Your task to perform on an android device: change the upload size in google photos Image 0: 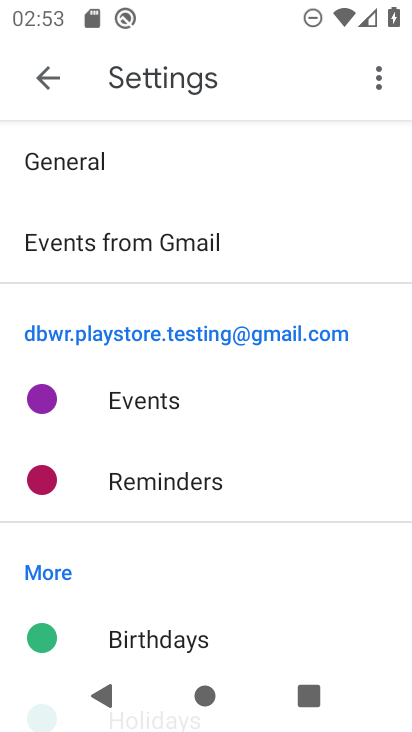
Step 0: press home button
Your task to perform on an android device: change the upload size in google photos Image 1: 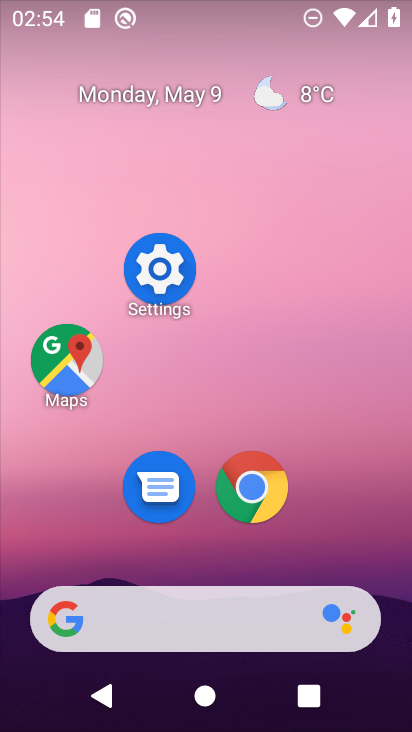
Step 1: drag from (357, 561) to (330, 219)
Your task to perform on an android device: change the upload size in google photos Image 2: 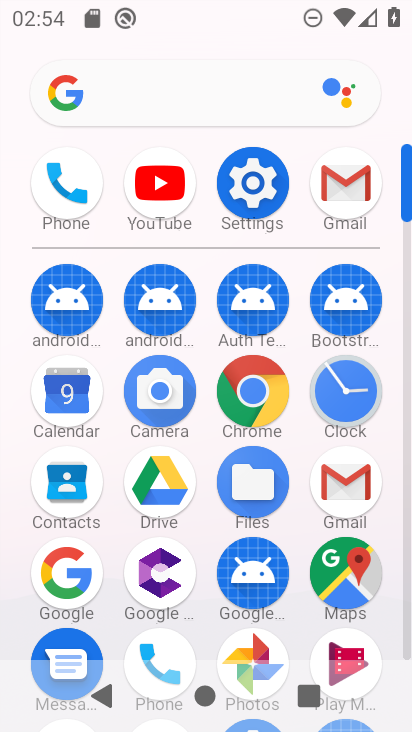
Step 2: drag from (203, 254) to (172, 100)
Your task to perform on an android device: change the upload size in google photos Image 3: 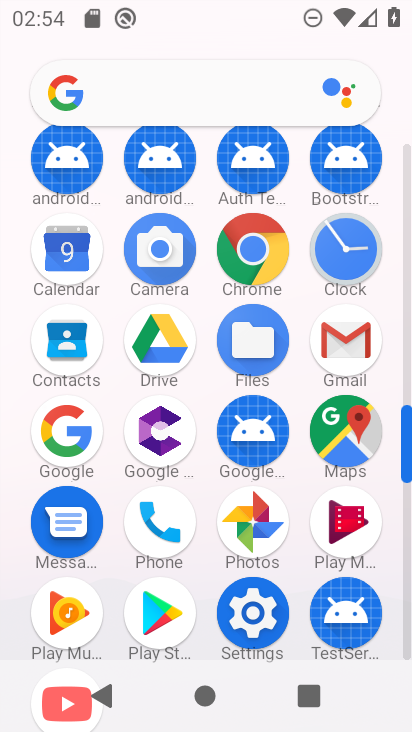
Step 3: click (236, 513)
Your task to perform on an android device: change the upload size in google photos Image 4: 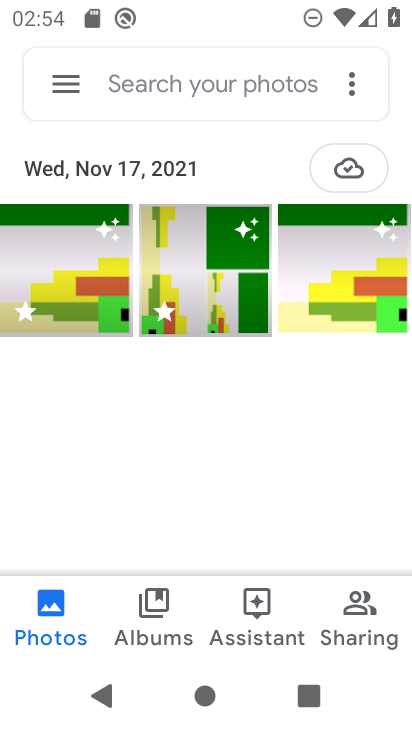
Step 4: click (74, 85)
Your task to perform on an android device: change the upload size in google photos Image 5: 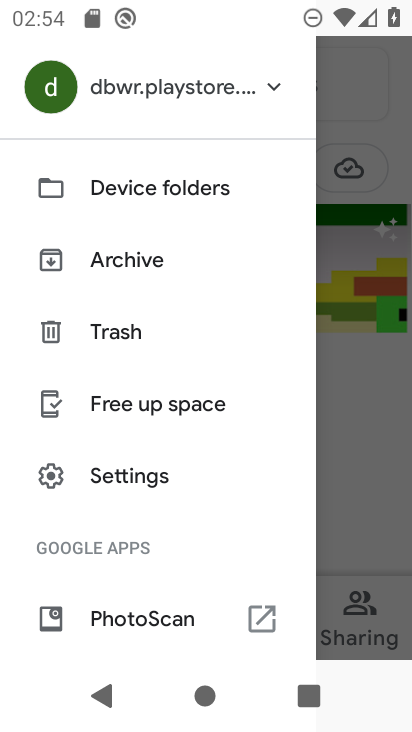
Step 5: drag from (146, 570) to (116, 170)
Your task to perform on an android device: change the upload size in google photos Image 6: 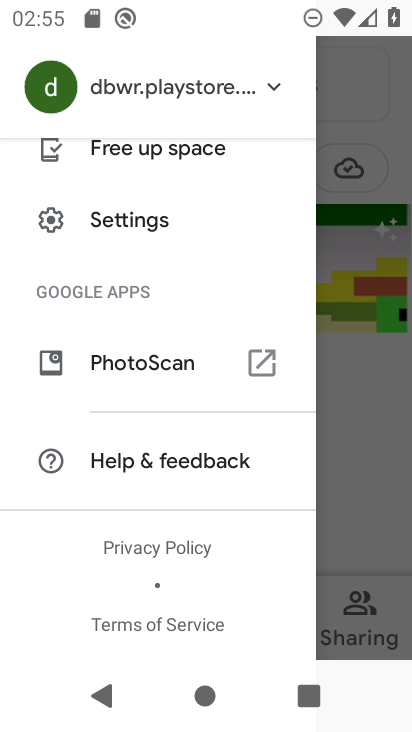
Step 6: click (159, 211)
Your task to perform on an android device: change the upload size in google photos Image 7: 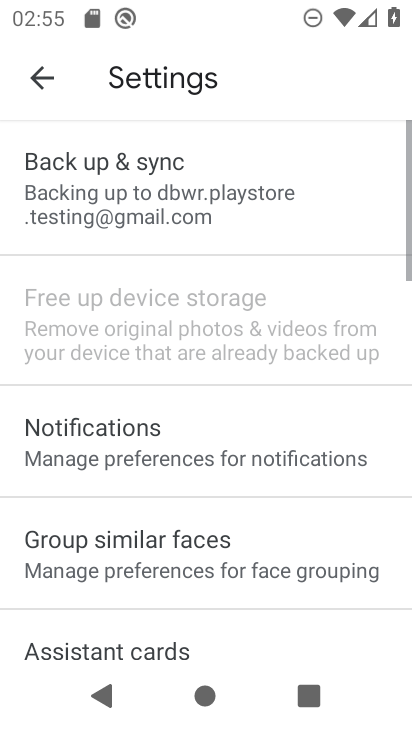
Step 7: click (250, 167)
Your task to perform on an android device: change the upload size in google photos Image 8: 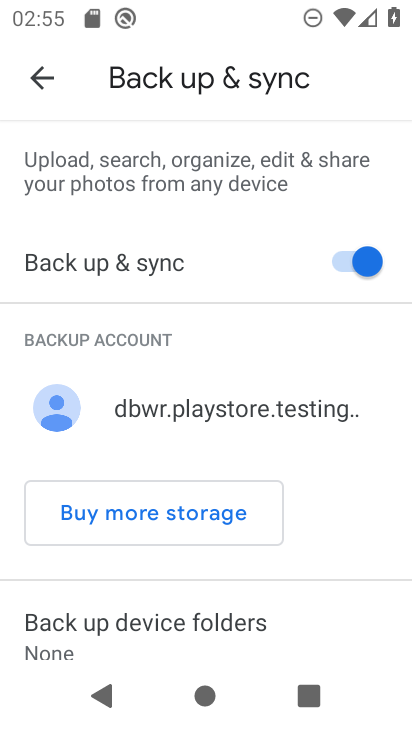
Step 8: drag from (178, 605) to (163, 279)
Your task to perform on an android device: change the upload size in google photos Image 9: 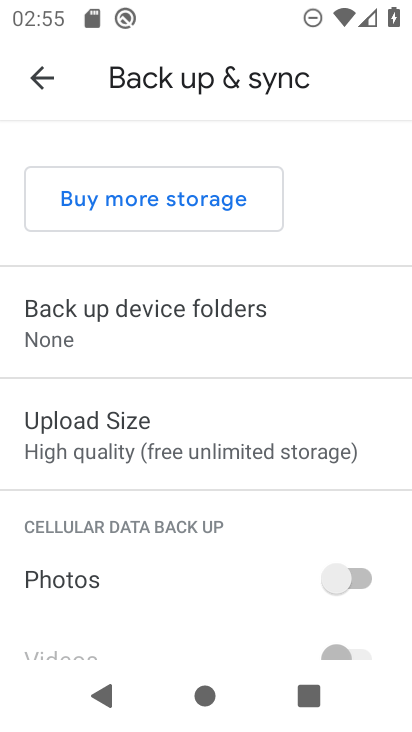
Step 9: click (146, 412)
Your task to perform on an android device: change the upload size in google photos Image 10: 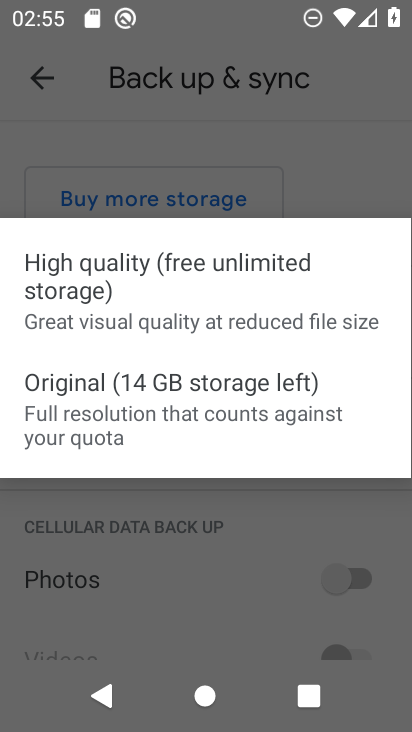
Step 10: click (125, 389)
Your task to perform on an android device: change the upload size in google photos Image 11: 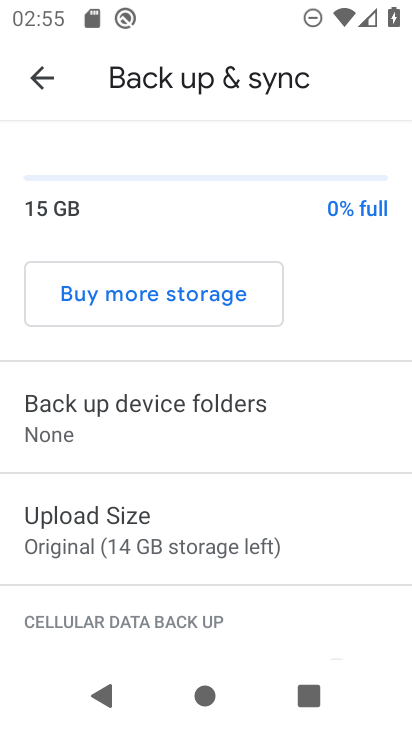
Step 11: task complete